Your task to perform on an android device: Go to Wikipedia Image 0: 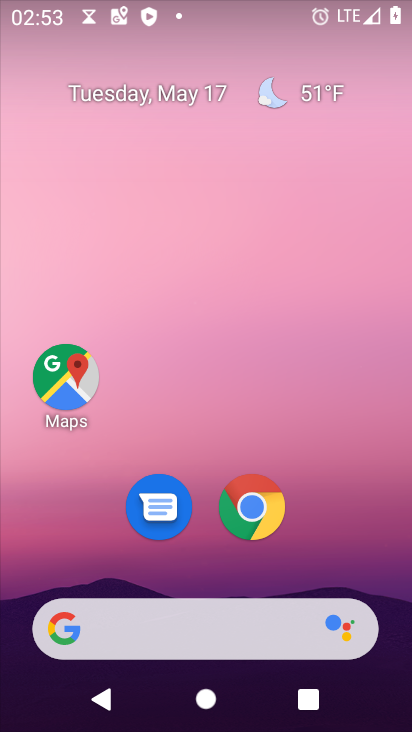
Step 0: click (259, 511)
Your task to perform on an android device: Go to Wikipedia Image 1: 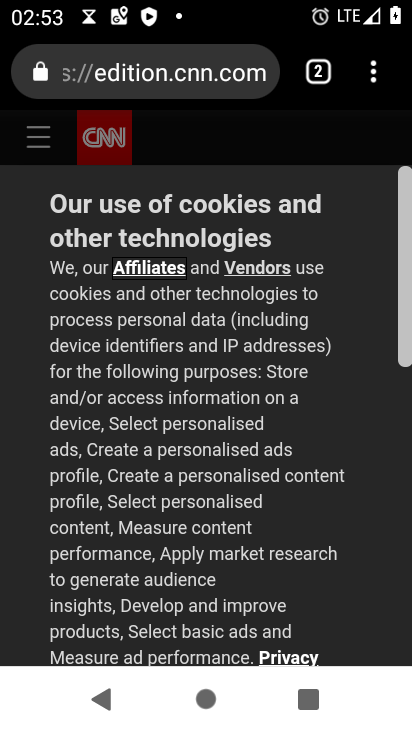
Step 1: click (143, 66)
Your task to perform on an android device: Go to Wikipedia Image 2: 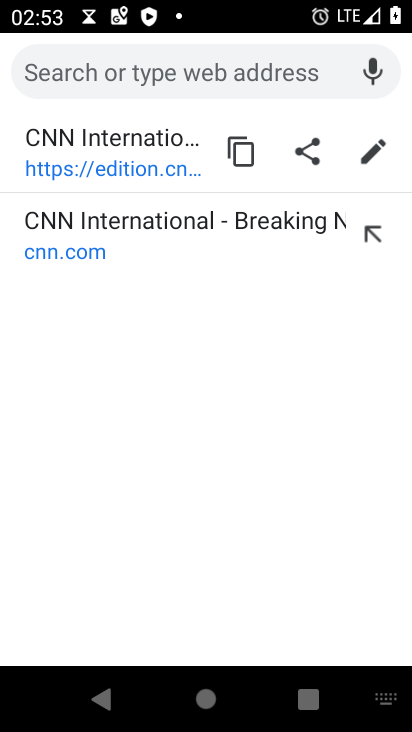
Step 2: type "wikipedia"
Your task to perform on an android device: Go to Wikipedia Image 3: 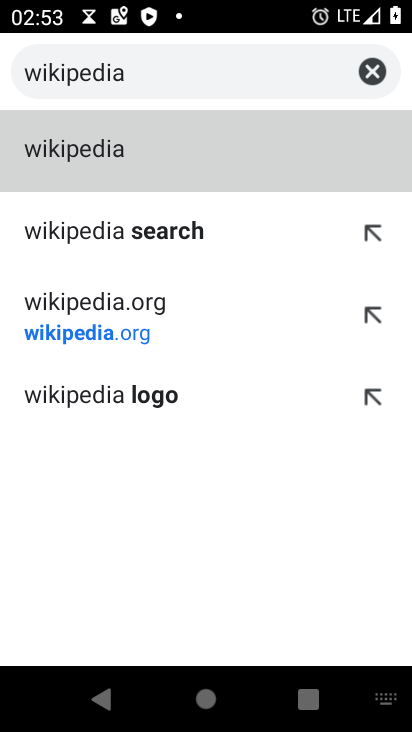
Step 3: click (53, 136)
Your task to perform on an android device: Go to Wikipedia Image 4: 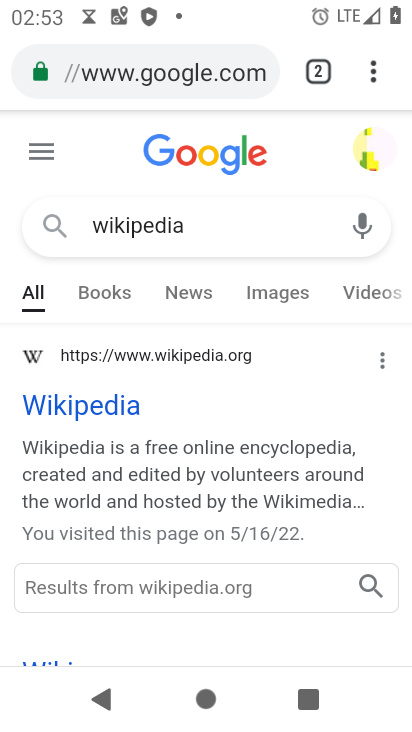
Step 4: click (77, 406)
Your task to perform on an android device: Go to Wikipedia Image 5: 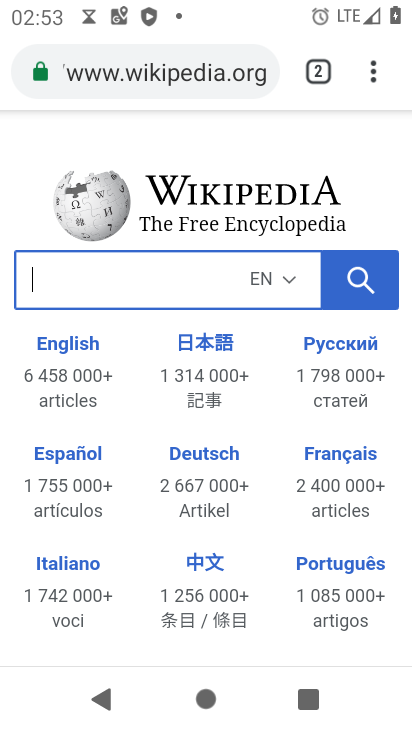
Step 5: task complete